Your task to perform on an android device: toggle location history Image 0: 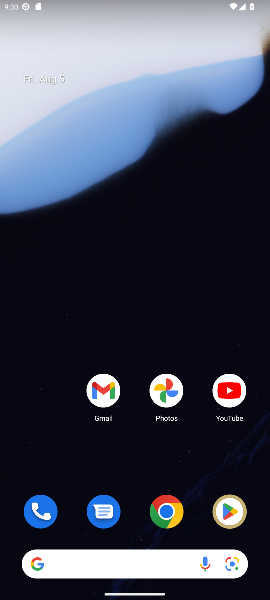
Step 0: drag from (123, 563) to (193, 280)
Your task to perform on an android device: toggle location history Image 1: 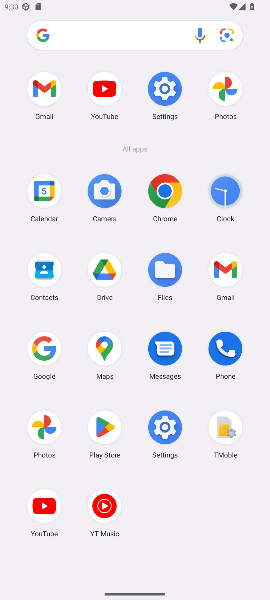
Step 1: click (165, 92)
Your task to perform on an android device: toggle location history Image 2: 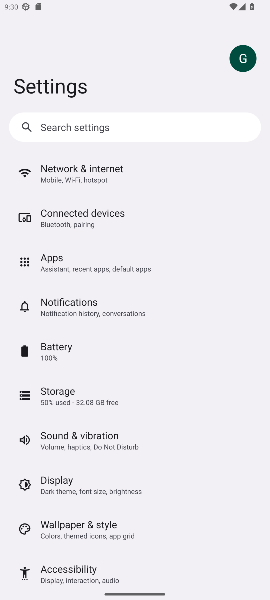
Step 2: drag from (105, 344) to (187, 243)
Your task to perform on an android device: toggle location history Image 3: 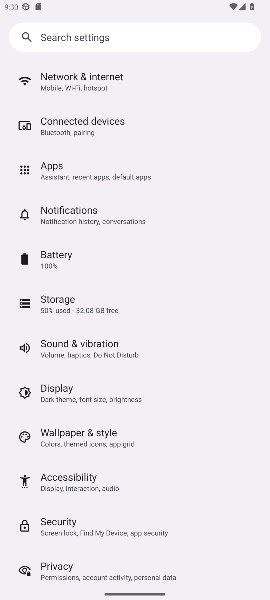
Step 3: drag from (91, 372) to (177, 266)
Your task to perform on an android device: toggle location history Image 4: 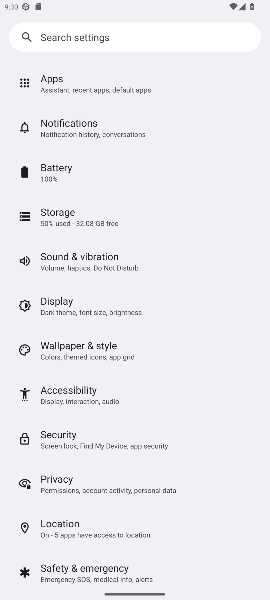
Step 4: drag from (88, 377) to (151, 303)
Your task to perform on an android device: toggle location history Image 5: 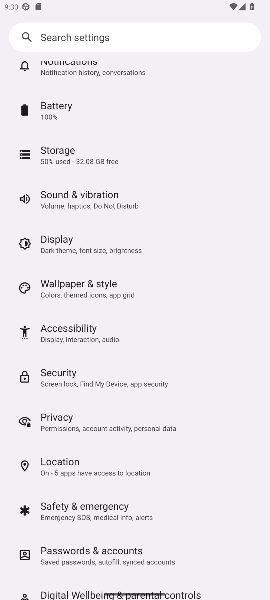
Step 5: drag from (60, 405) to (138, 320)
Your task to perform on an android device: toggle location history Image 6: 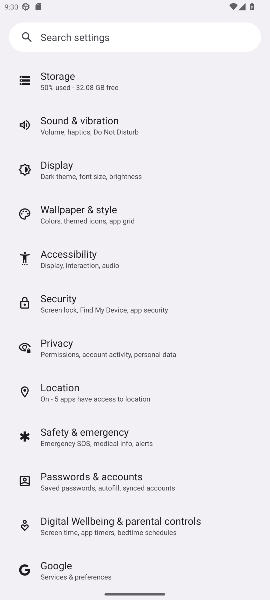
Step 6: click (66, 394)
Your task to perform on an android device: toggle location history Image 7: 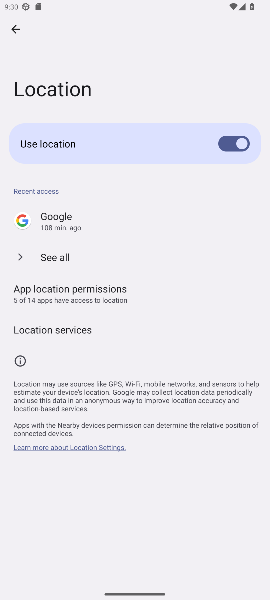
Step 7: click (74, 332)
Your task to perform on an android device: toggle location history Image 8: 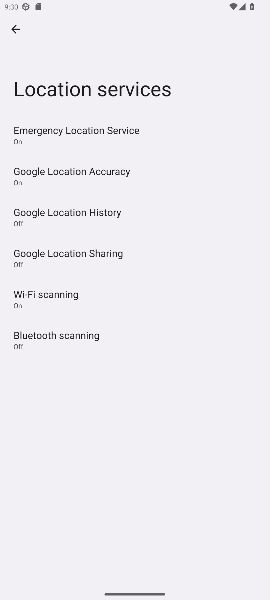
Step 8: click (99, 212)
Your task to perform on an android device: toggle location history Image 9: 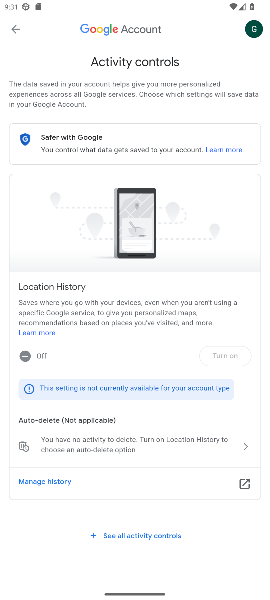
Step 9: click (129, 540)
Your task to perform on an android device: toggle location history Image 10: 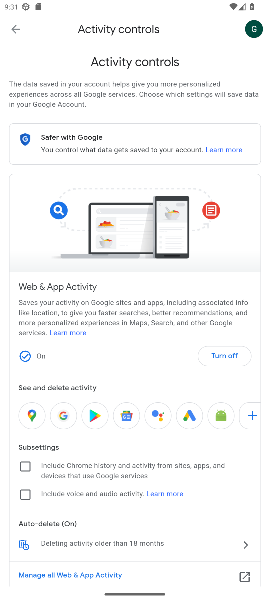
Step 10: task complete